Your task to perform on an android device: open app "WhatsApp Messenger" (install if not already installed) Image 0: 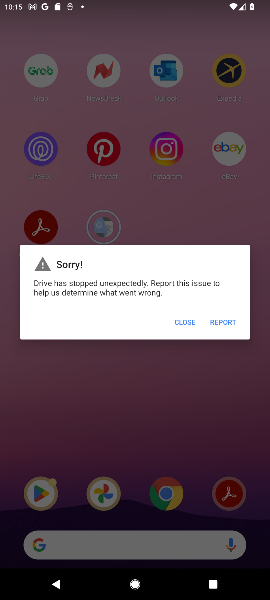
Step 0: click (48, 494)
Your task to perform on an android device: open app "WhatsApp Messenger" (install if not already installed) Image 1: 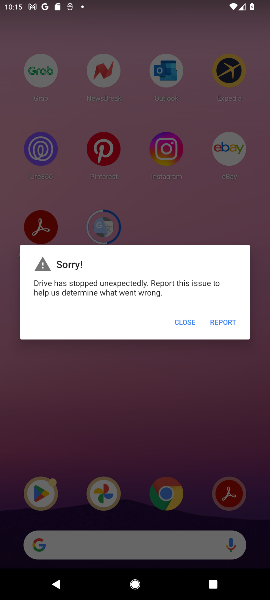
Step 1: click (207, 327)
Your task to perform on an android device: open app "WhatsApp Messenger" (install if not already installed) Image 2: 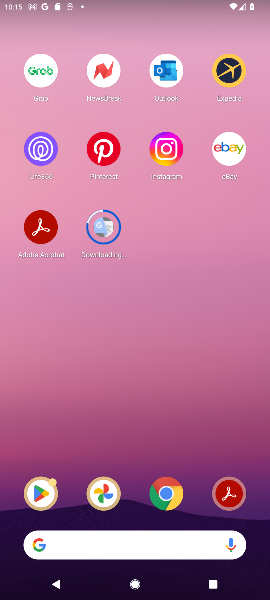
Step 2: click (52, 470)
Your task to perform on an android device: open app "WhatsApp Messenger" (install if not already installed) Image 3: 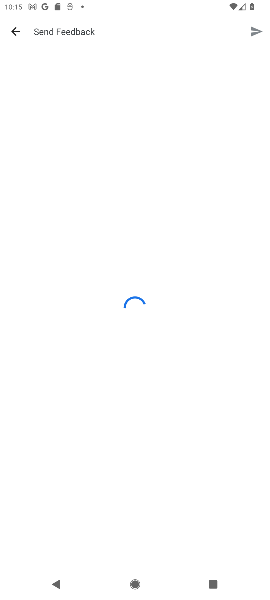
Step 3: click (39, 488)
Your task to perform on an android device: open app "WhatsApp Messenger" (install if not already installed) Image 4: 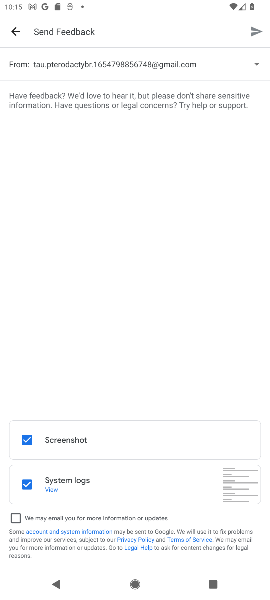
Step 4: press home button
Your task to perform on an android device: open app "WhatsApp Messenger" (install if not already installed) Image 5: 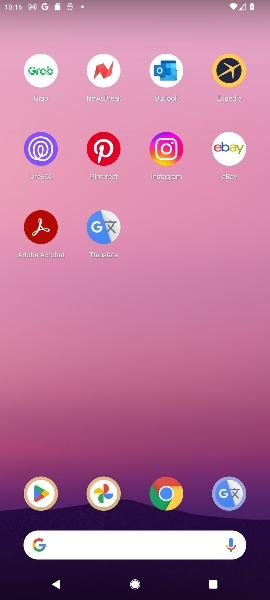
Step 5: click (44, 503)
Your task to perform on an android device: open app "WhatsApp Messenger" (install if not already installed) Image 6: 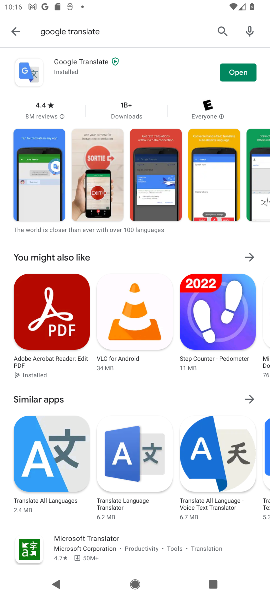
Step 6: click (212, 33)
Your task to perform on an android device: open app "WhatsApp Messenger" (install if not already installed) Image 7: 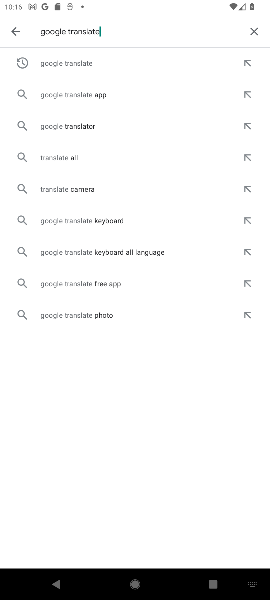
Step 7: click (246, 32)
Your task to perform on an android device: open app "WhatsApp Messenger" (install if not already installed) Image 8: 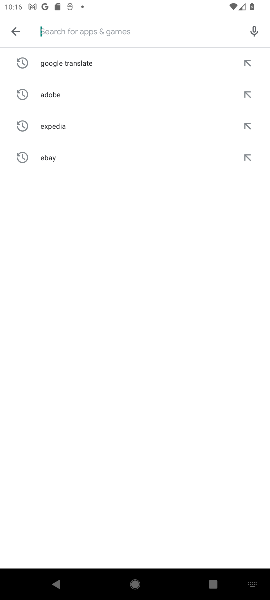
Step 8: type "whatapp"
Your task to perform on an android device: open app "WhatsApp Messenger" (install if not already installed) Image 9: 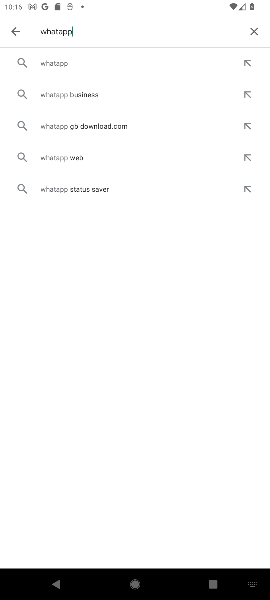
Step 9: click (119, 66)
Your task to perform on an android device: open app "WhatsApp Messenger" (install if not already installed) Image 10: 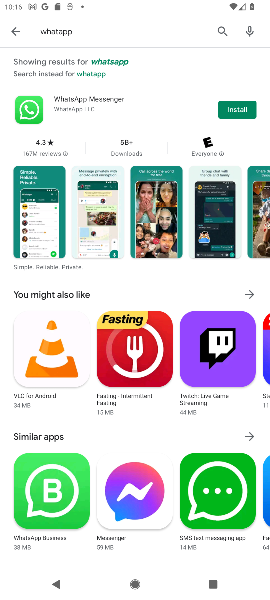
Step 10: click (231, 111)
Your task to perform on an android device: open app "WhatsApp Messenger" (install if not already installed) Image 11: 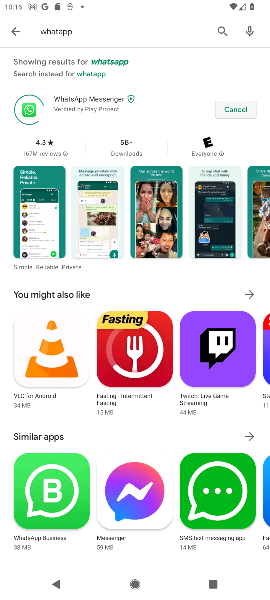
Step 11: task complete